Your task to perform on an android device: toggle notification dots Image 0: 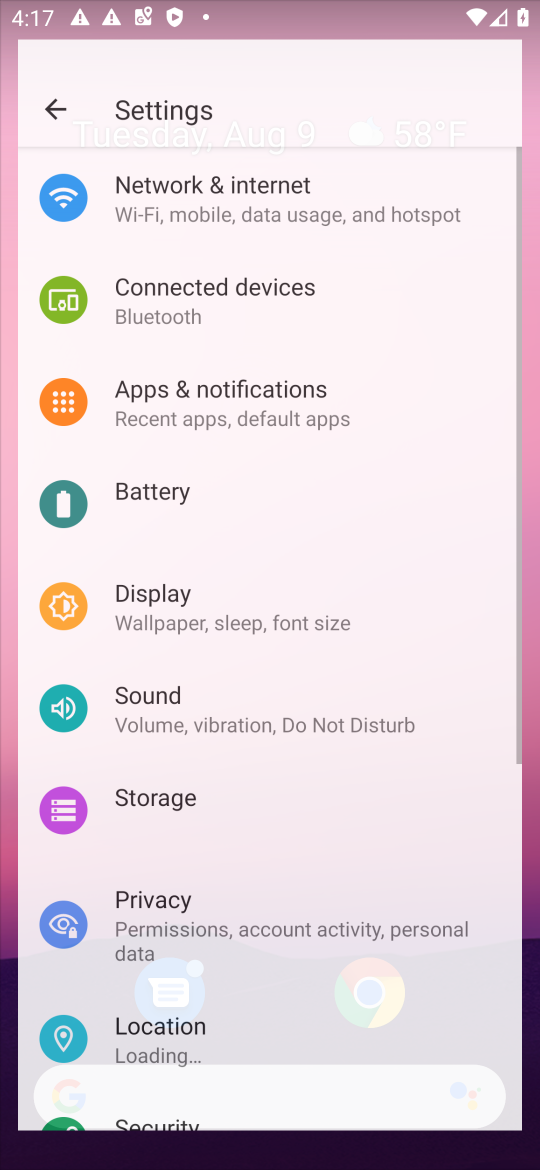
Step 0: press home button
Your task to perform on an android device: toggle notification dots Image 1: 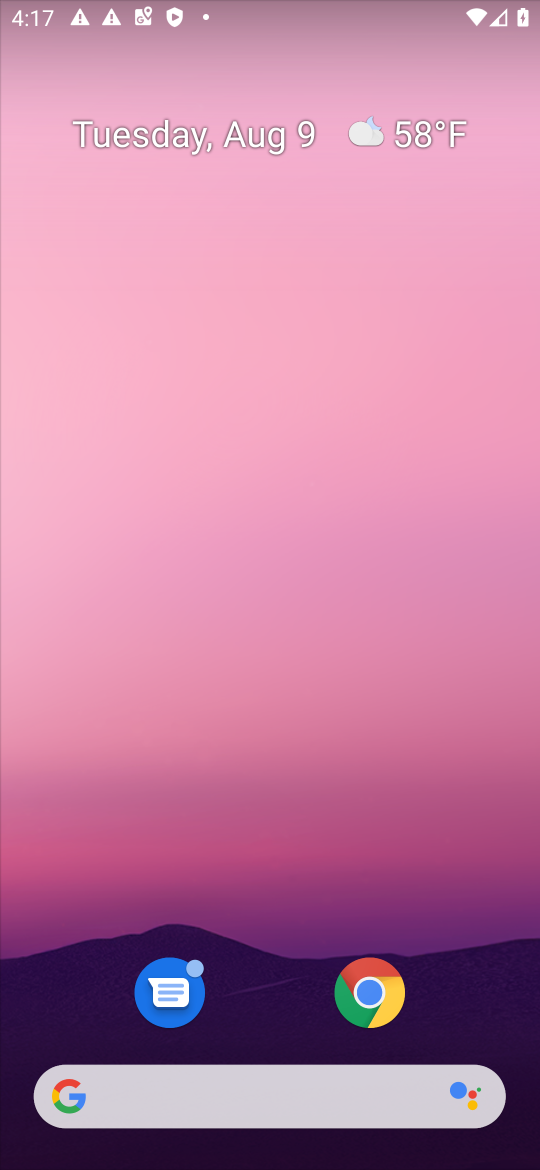
Step 1: drag from (199, 1099) to (279, 48)
Your task to perform on an android device: toggle notification dots Image 2: 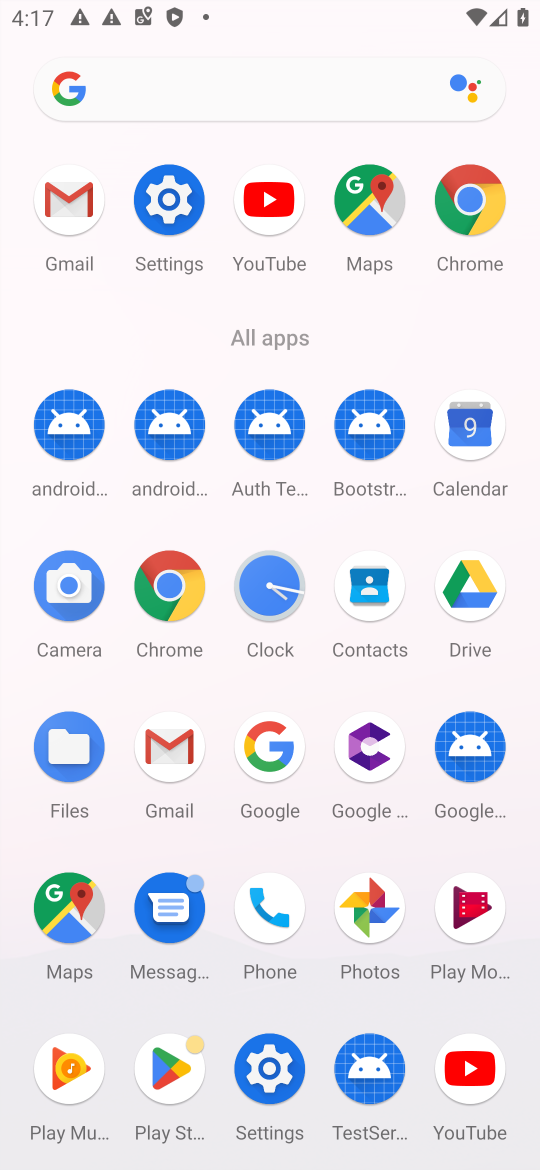
Step 2: click (185, 194)
Your task to perform on an android device: toggle notification dots Image 3: 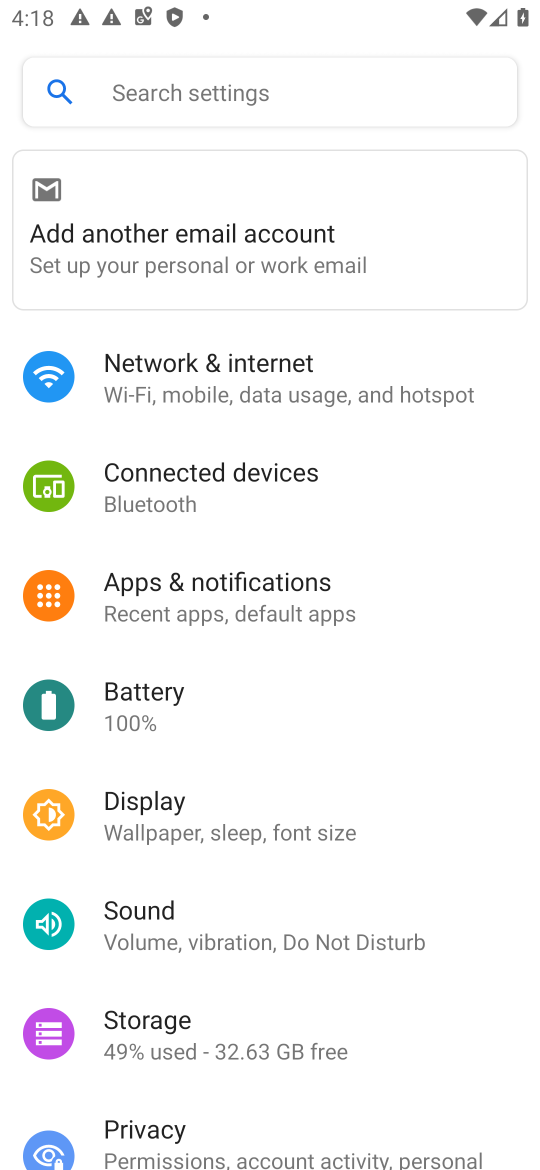
Step 3: click (162, 585)
Your task to perform on an android device: toggle notification dots Image 4: 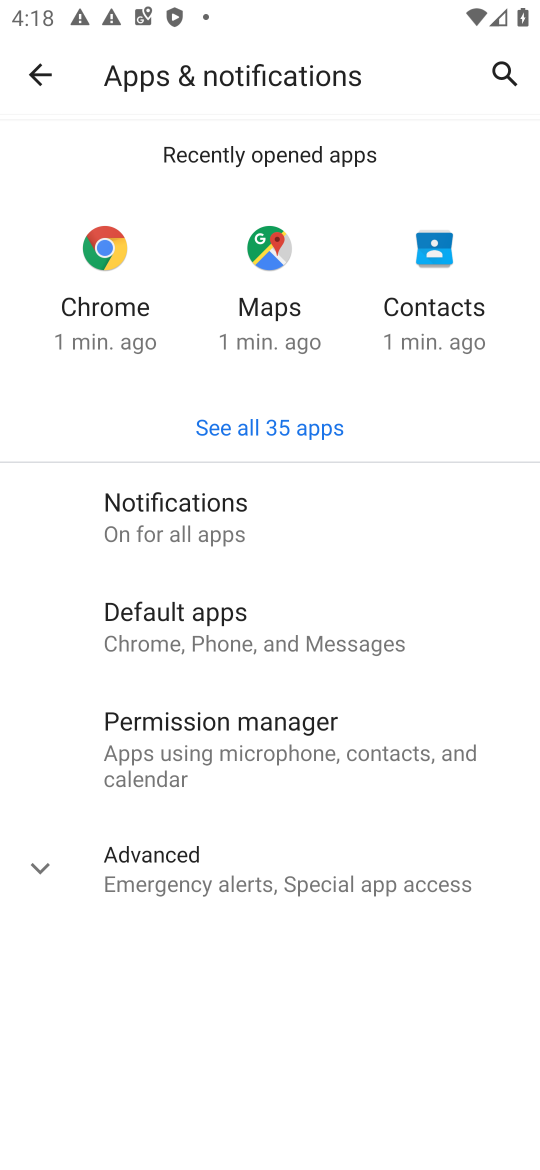
Step 4: click (196, 508)
Your task to perform on an android device: toggle notification dots Image 5: 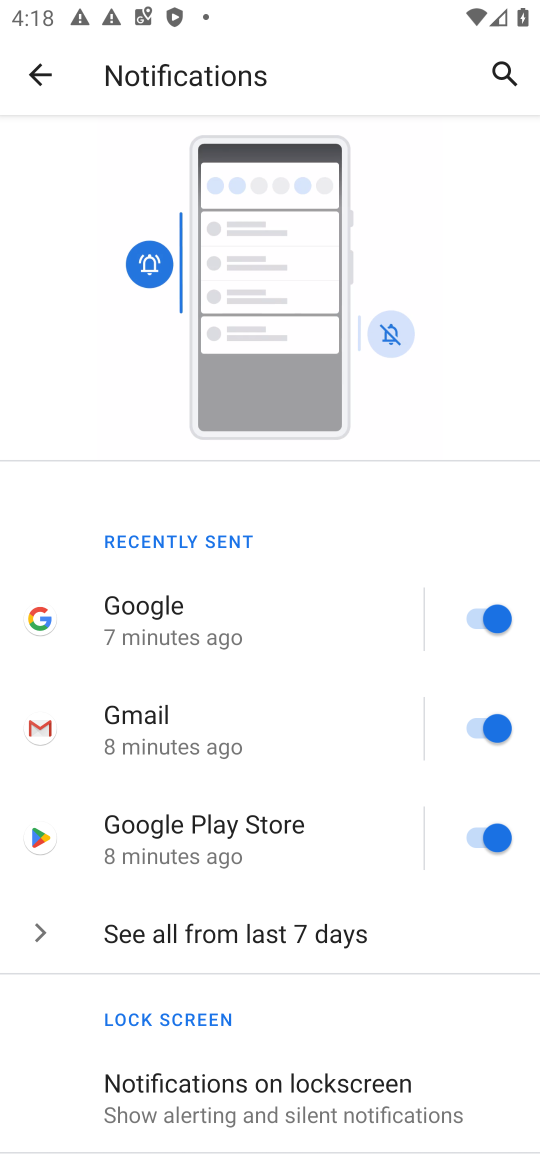
Step 5: drag from (499, 1097) to (526, 364)
Your task to perform on an android device: toggle notification dots Image 6: 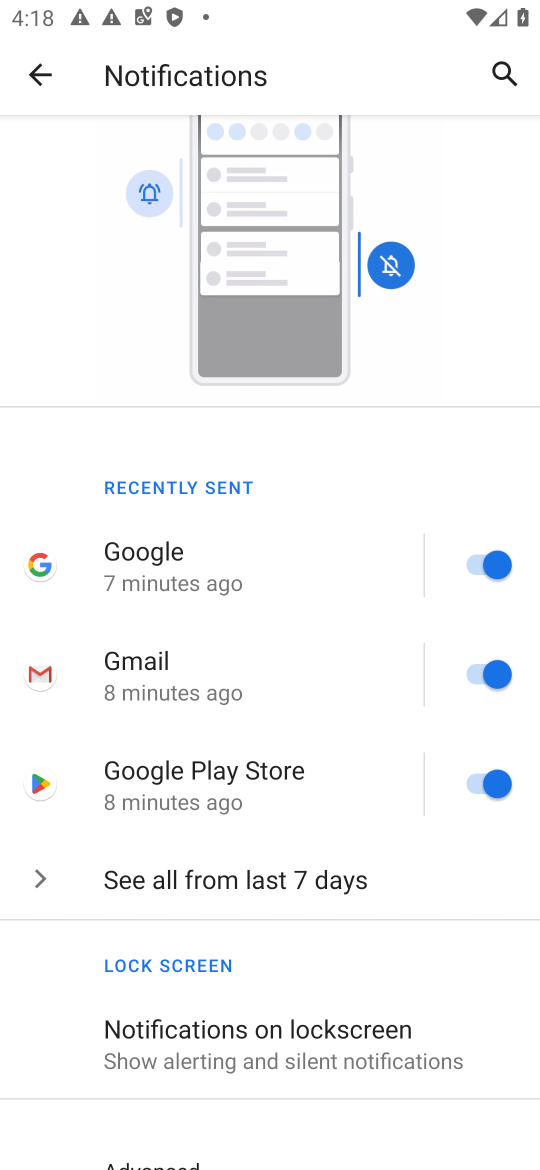
Step 6: click (180, 1156)
Your task to perform on an android device: toggle notification dots Image 7: 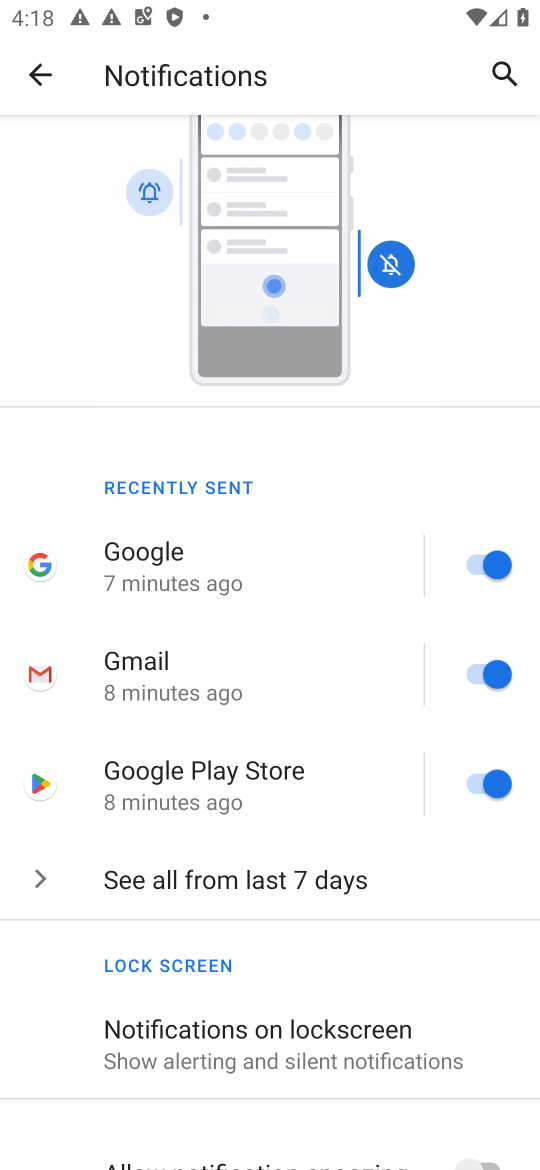
Step 7: drag from (292, 1117) to (204, 73)
Your task to perform on an android device: toggle notification dots Image 8: 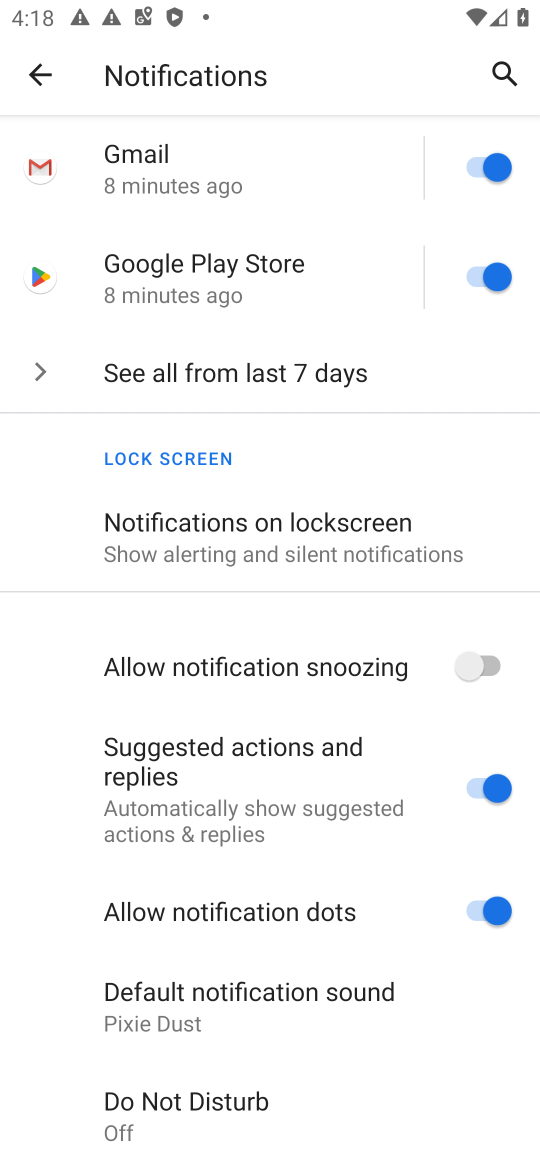
Step 8: click (474, 929)
Your task to perform on an android device: toggle notification dots Image 9: 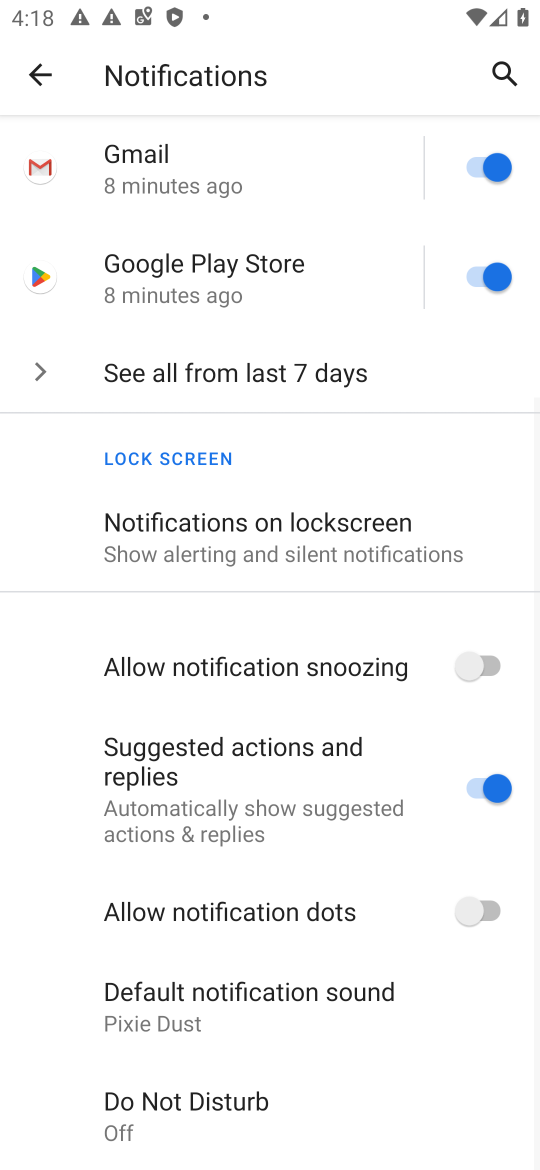
Step 9: task complete